Your task to perform on an android device: turn off improve location accuracy Image 0: 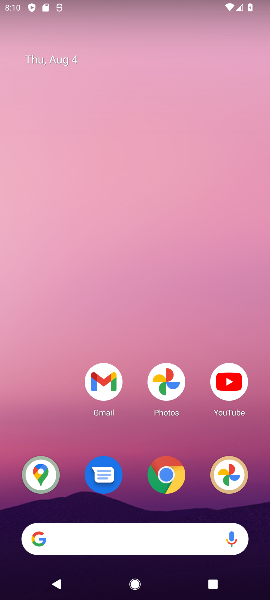
Step 0: drag from (148, 455) to (199, 45)
Your task to perform on an android device: turn off improve location accuracy Image 1: 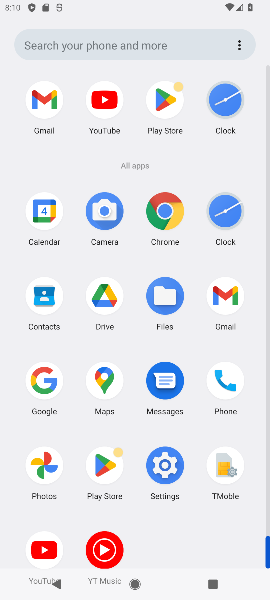
Step 1: click (168, 465)
Your task to perform on an android device: turn off improve location accuracy Image 2: 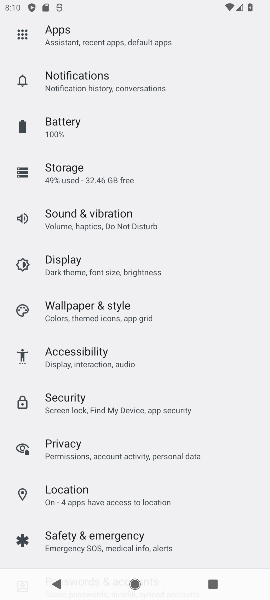
Step 2: click (80, 496)
Your task to perform on an android device: turn off improve location accuracy Image 3: 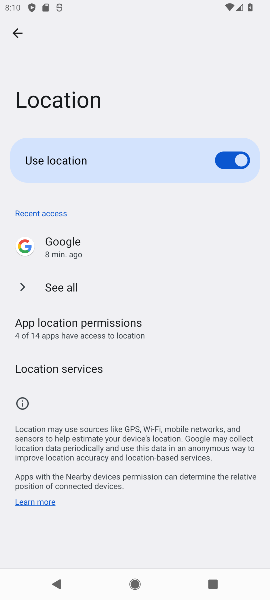
Step 3: click (79, 370)
Your task to perform on an android device: turn off improve location accuracy Image 4: 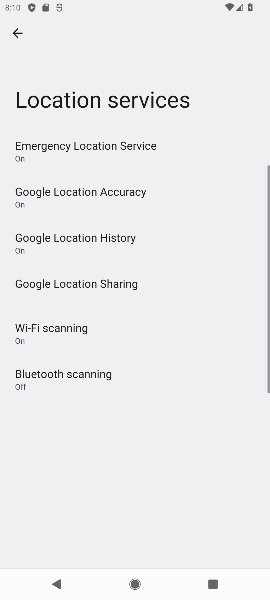
Step 4: click (108, 192)
Your task to perform on an android device: turn off improve location accuracy Image 5: 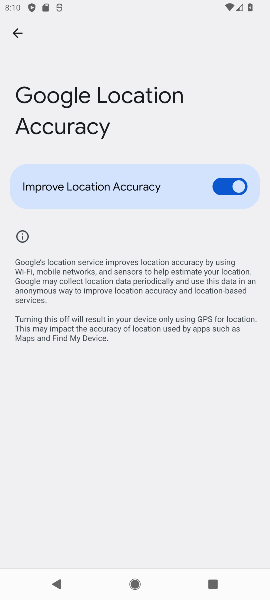
Step 5: drag from (152, 395) to (188, 274)
Your task to perform on an android device: turn off improve location accuracy Image 6: 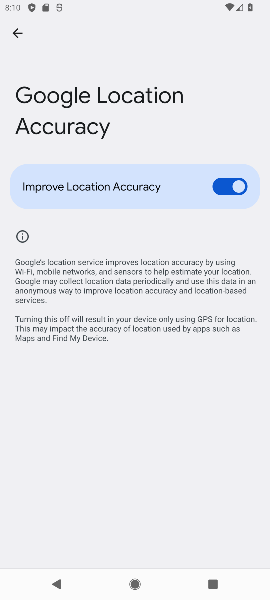
Step 6: click (229, 177)
Your task to perform on an android device: turn off improve location accuracy Image 7: 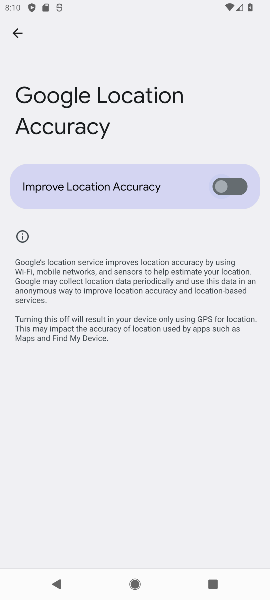
Step 7: task complete